Your task to perform on an android device: open chrome privacy settings Image 0: 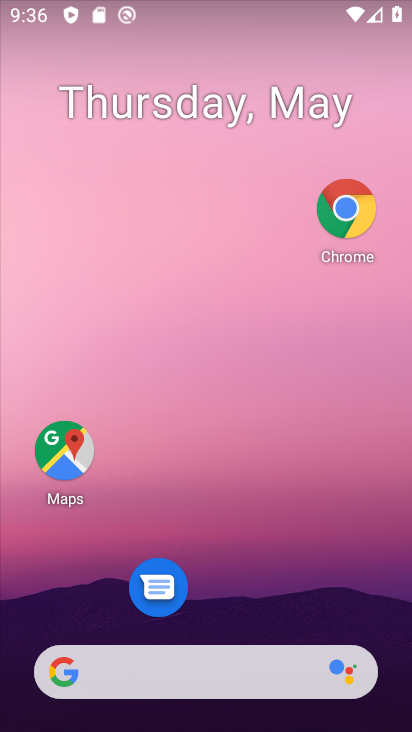
Step 0: click (335, 227)
Your task to perform on an android device: open chrome privacy settings Image 1: 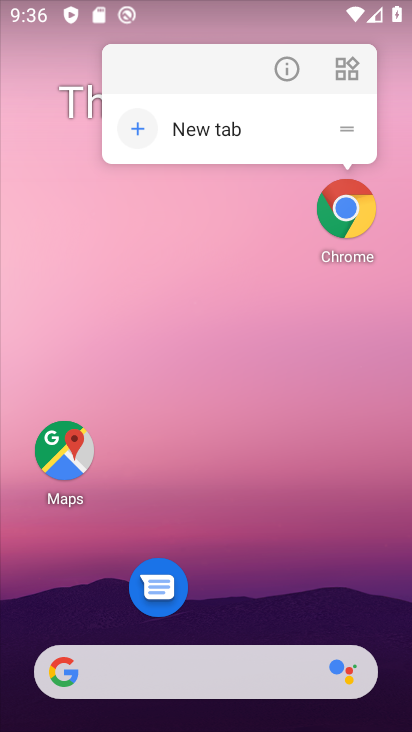
Step 1: click (346, 215)
Your task to perform on an android device: open chrome privacy settings Image 2: 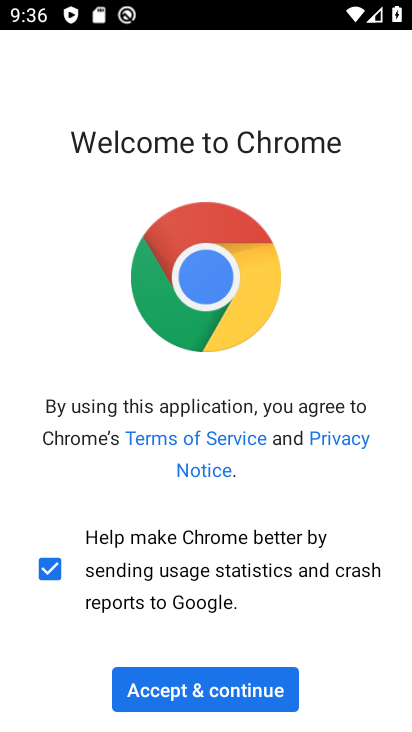
Step 2: click (194, 691)
Your task to perform on an android device: open chrome privacy settings Image 3: 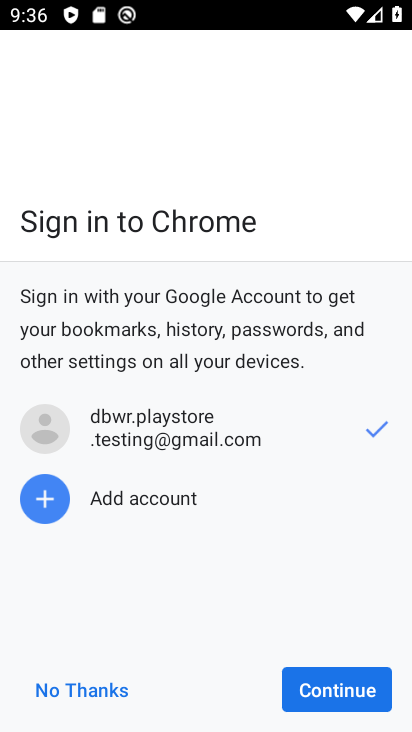
Step 3: click (339, 687)
Your task to perform on an android device: open chrome privacy settings Image 4: 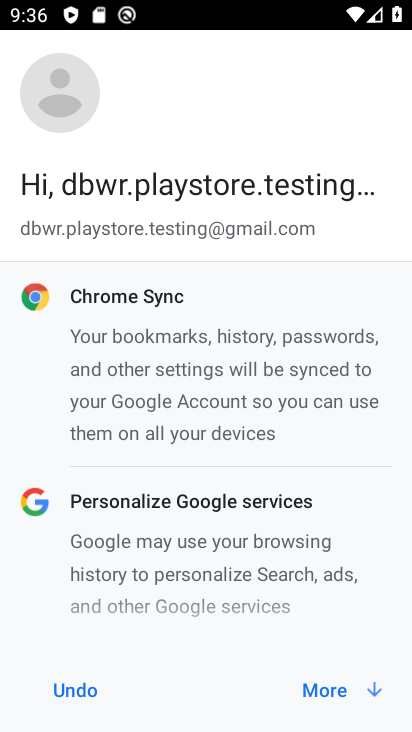
Step 4: click (338, 687)
Your task to perform on an android device: open chrome privacy settings Image 5: 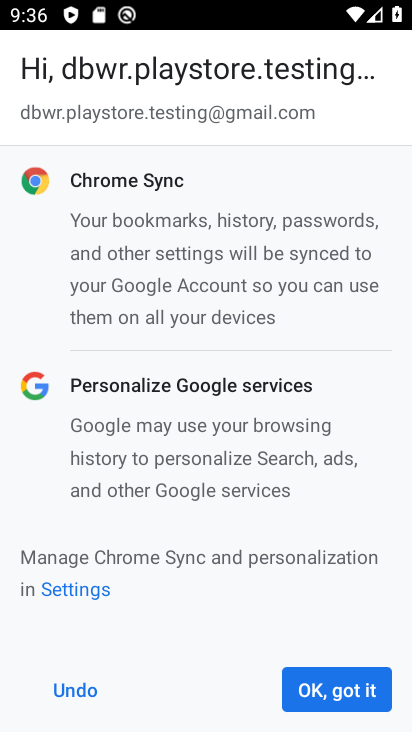
Step 5: click (337, 686)
Your task to perform on an android device: open chrome privacy settings Image 6: 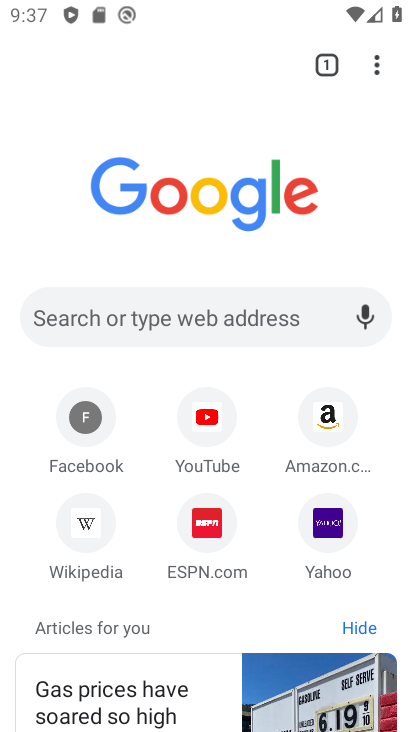
Step 6: click (379, 68)
Your task to perform on an android device: open chrome privacy settings Image 7: 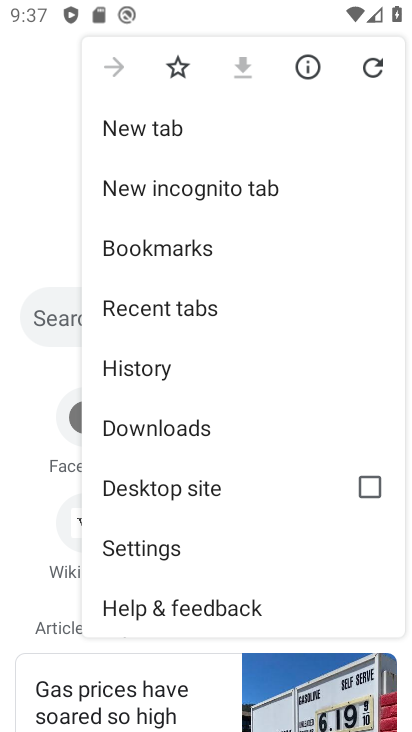
Step 7: click (150, 552)
Your task to perform on an android device: open chrome privacy settings Image 8: 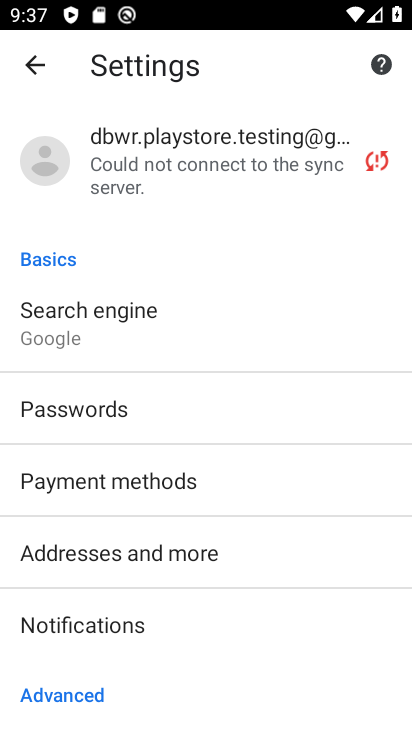
Step 8: drag from (98, 656) to (140, 414)
Your task to perform on an android device: open chrome privacy settings Image 9: 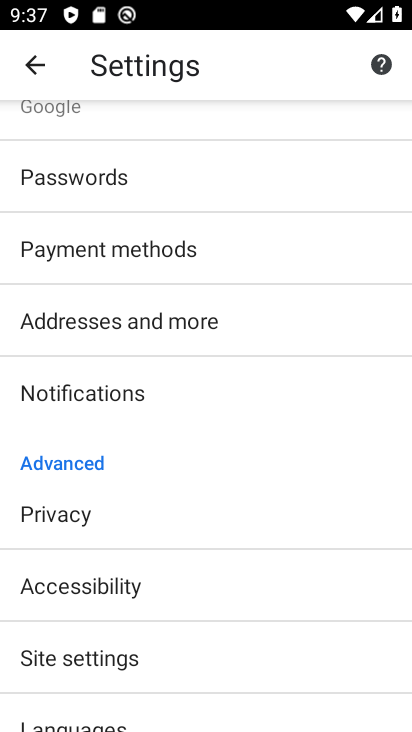
Step 9: click (58, 529)
Your task to perform on an android device: open chrome privacy settings Image 10: 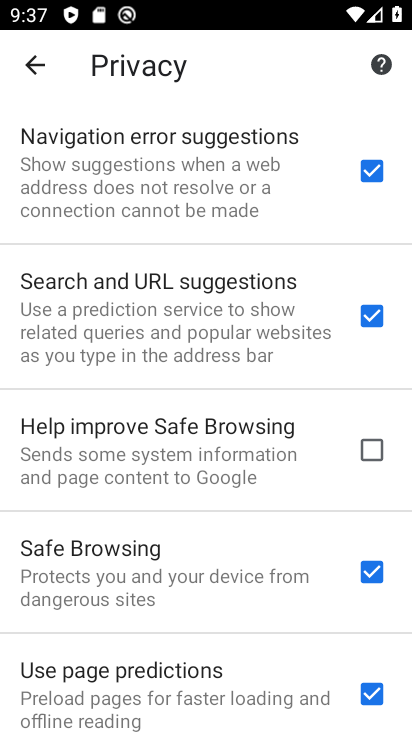
Step 10: task complete